Your task to perform on an android device: Is it going to rain today? Image 0: 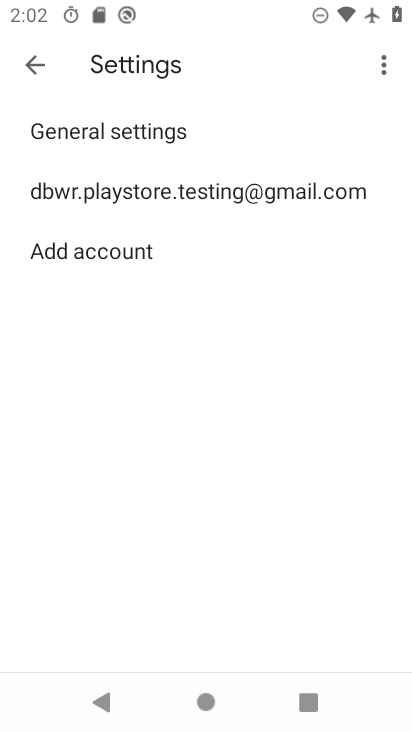
Step 0: press home button
Your task to perform on an android device: Is it going to rain today? Image 1: 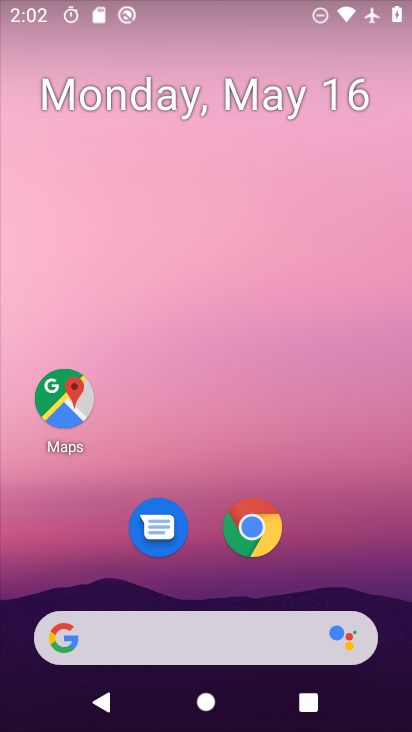
Step 1: click (70, 642)
Your task to perform on an android device: Is it going to rain today? Image 2: 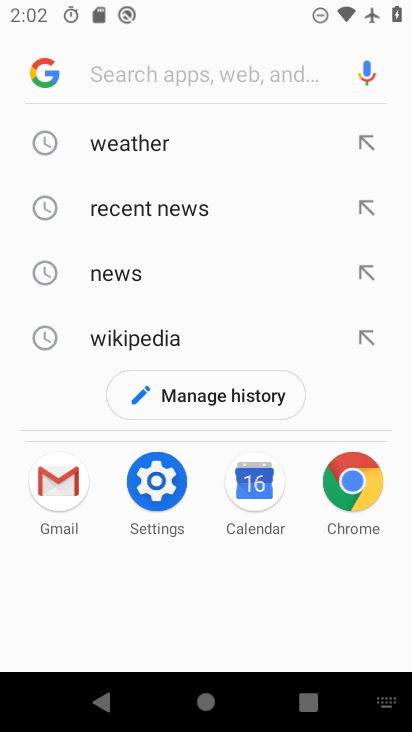
Step 2: click (150, 139)
Your task to perform on an android device: Is it going to rain today? Image 3: 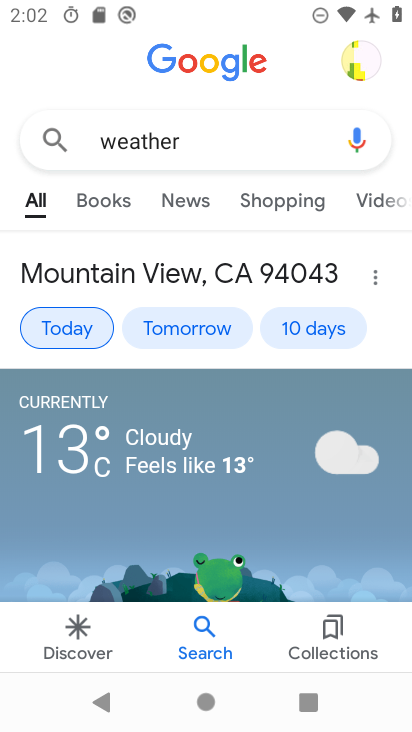
Step 3: task complete